Your task to perform on an android device: Open the phone app and click the voicemail tab. Image 0: 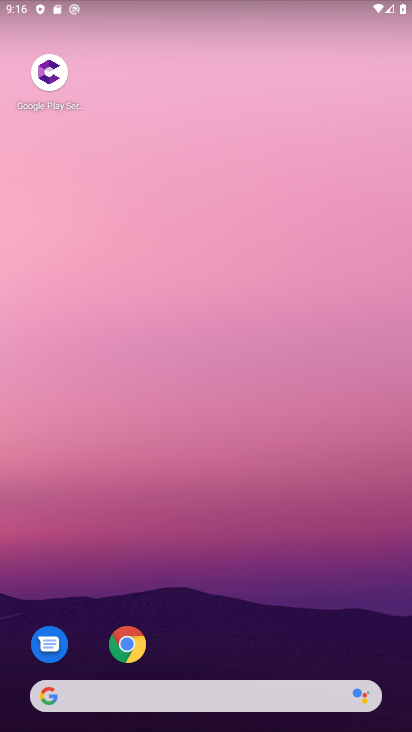
Step 0: drag from (364, 646) to (314, 125)
Your task to perform on an android device: Open the phone app and click the voicemail tab. Image 1: 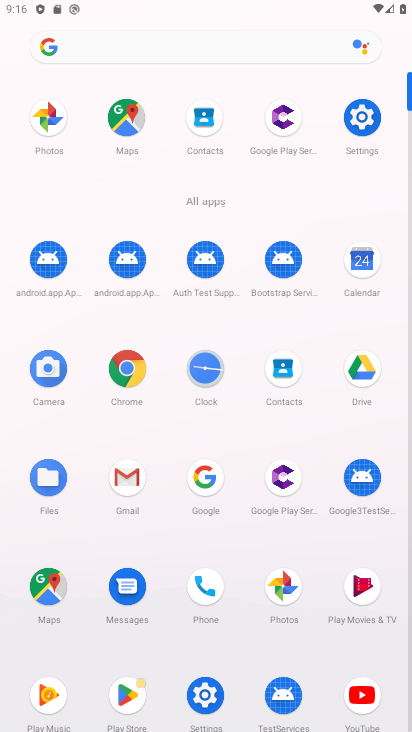
Step 1: click (200, 584)
Your task to perform on an android device: Open the phone app and click the voicemail tab. Image 2: 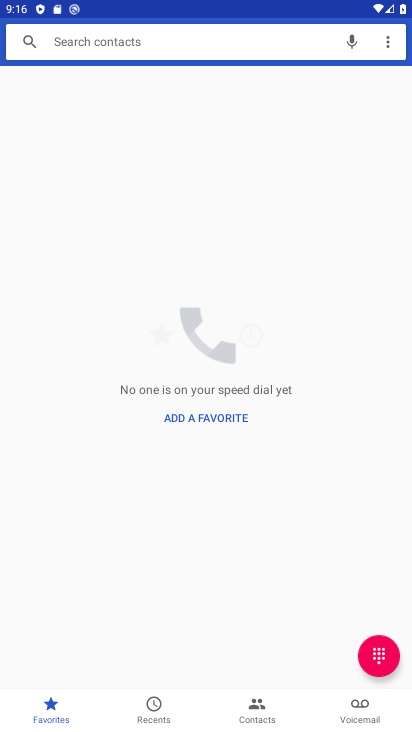
Step 2: click (361, 705)
Your task to perform on an android device: Open the phone app and click the voicemail tab. Image 3: 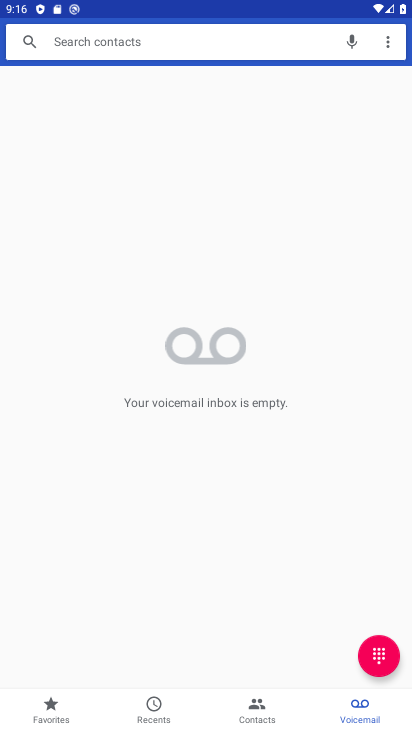
Step 3: task complete